Your task to perform on an android device: Open settings Image 0: 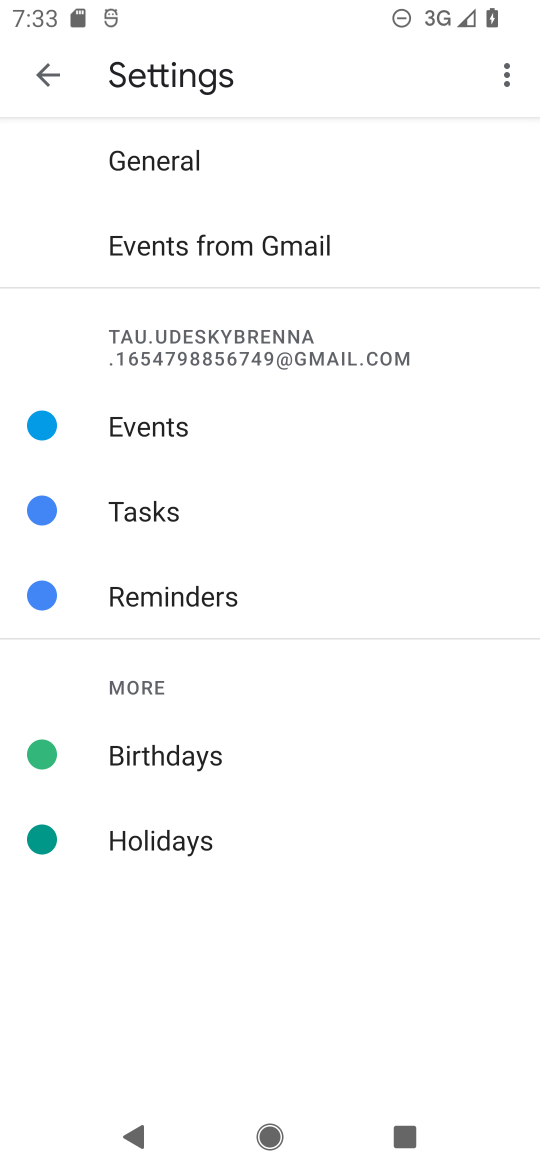
Step 0: press home button
Your task to perform on an android device: Open settings Image 1: 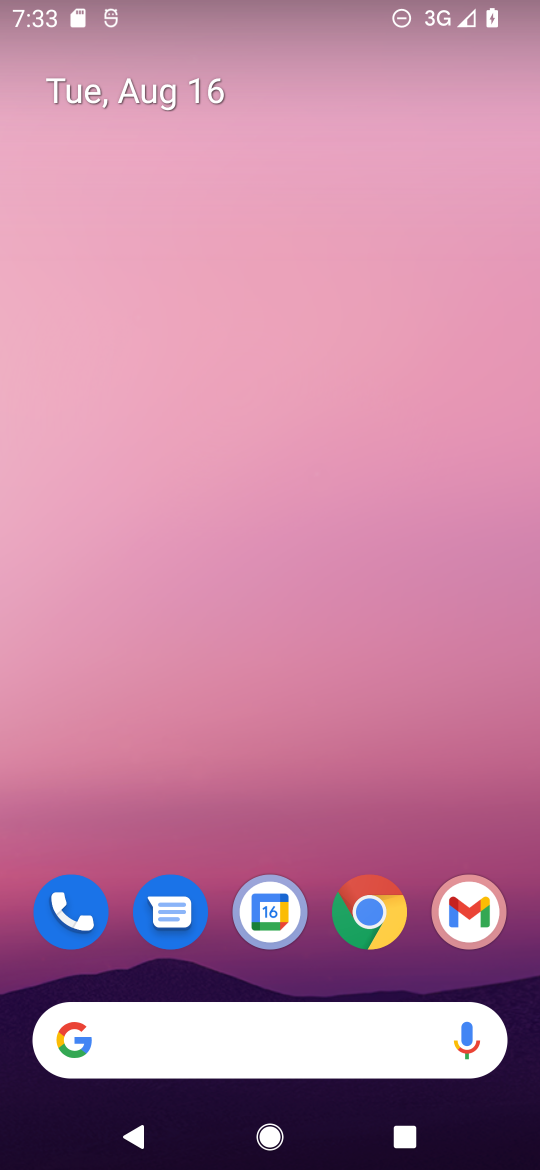
Step 1: drag from (425, 976) to (381, 162)
Your task to perform on an android device: Open settings Image 2: 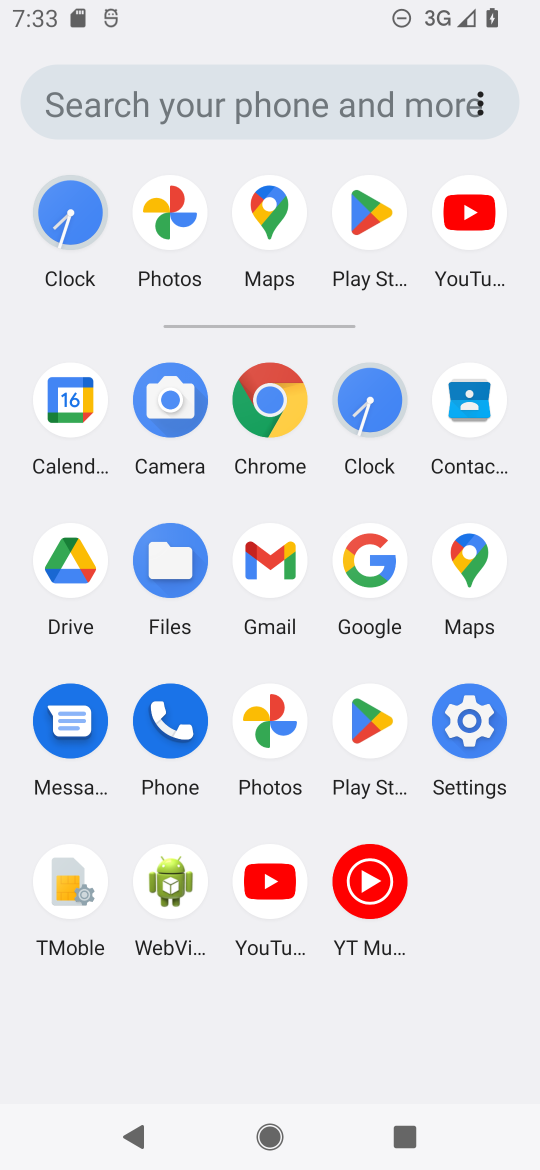
Step 2: click (470, 725)
Your task to perform on an android device: Open settings Image 3: 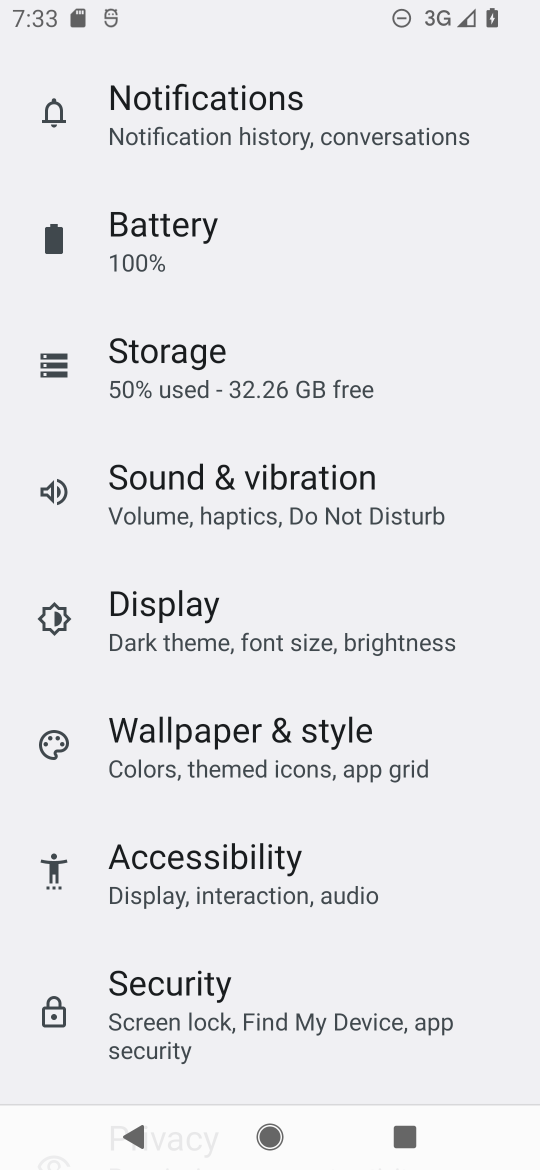
Step 3: task complete